Your task to perform on an android device: toggle airplane mode Image 0: 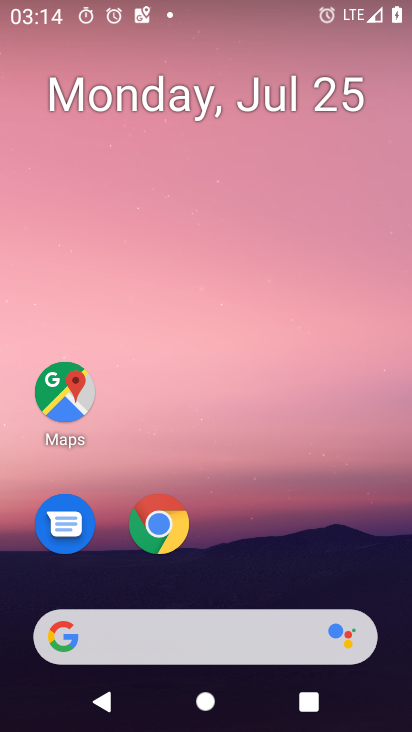
Step 0: press home button
Your task to perform on an android device: toggle airplane mode Image 1: 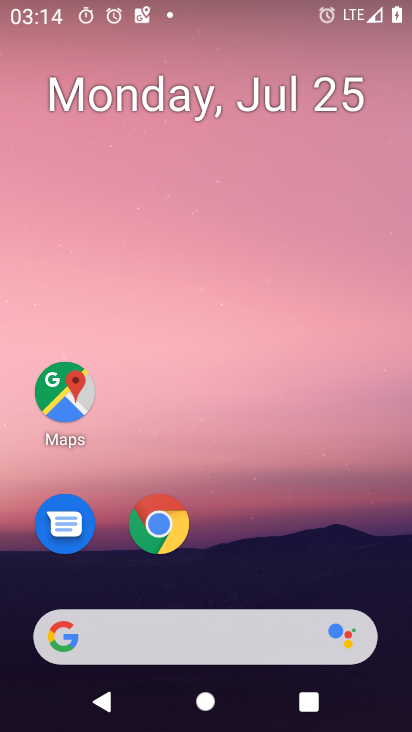
Step 1: drag from (228, 35) to (249, 429)
Your task to perform on an android device: toggle airplane mode Image 2: 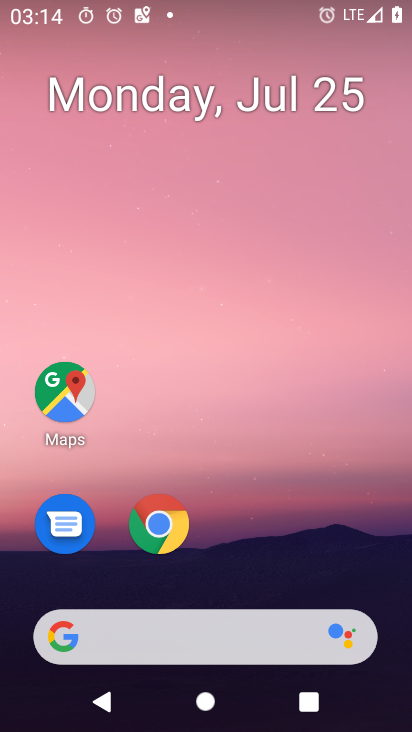
Step 2: drag from (234, 7) to (211, 456)
Your task to perform on an android device: toggle airplane mode Image 3: 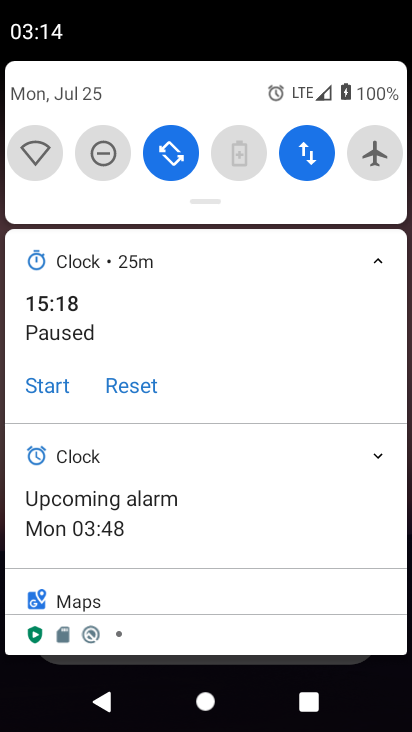
Step 3: click (366, 151)
Your task to perform on an android device: toggle airplane mode Image 4: 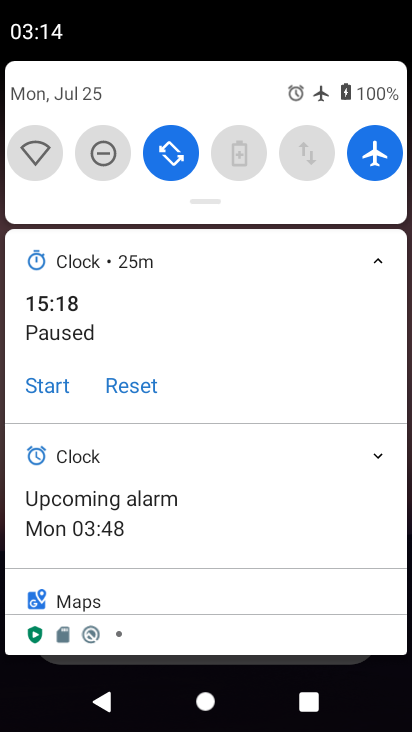
Step 4: task complete